Your task to perform on an android device: Open the map Image 0: 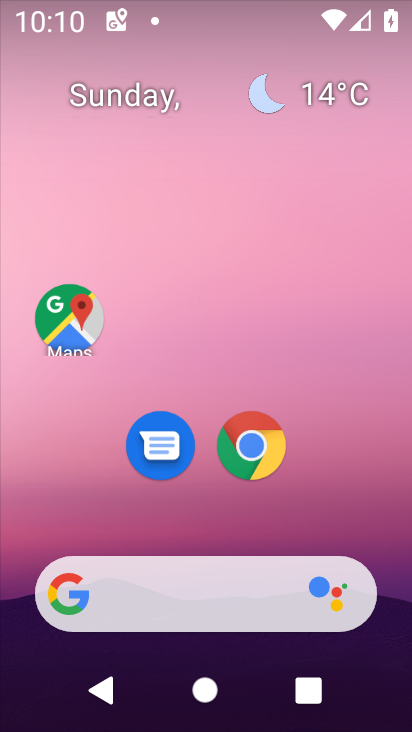
Step 0: drag from (208, 523) to (285, 30)
Your task to perform on an android device: Open the map Image 1: 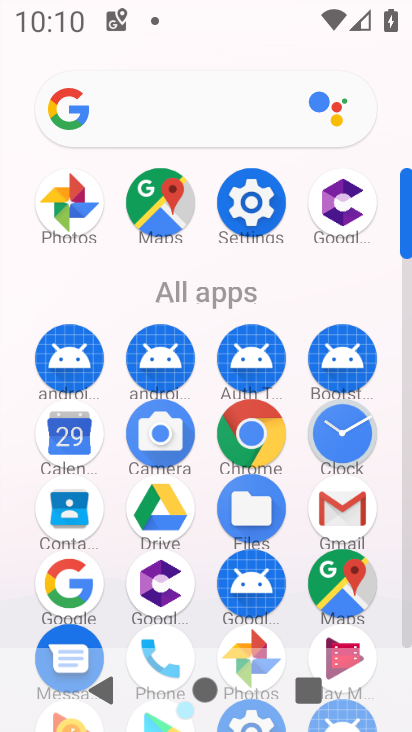
Step 1: drag from (207, 628) to (192, 138)
Your task to perform on an android device: Open the map Image 2: 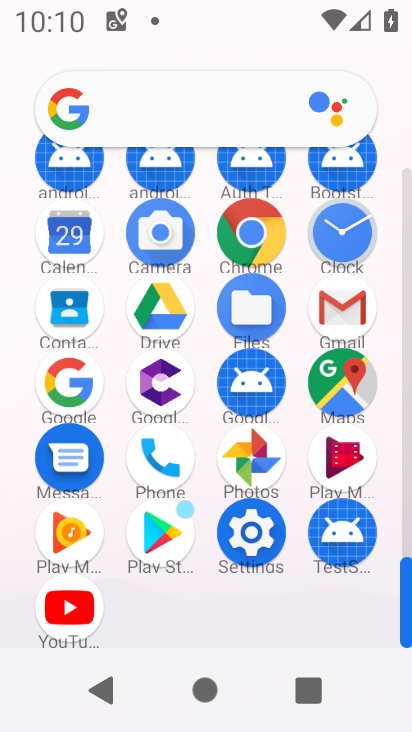
Step 2: click (339, 368)
Your task to perform on an android device: Open the map Image 3: 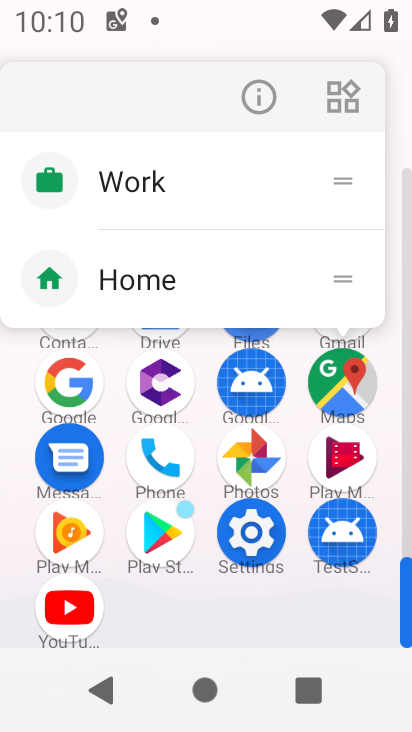
Step 3: click (265, 115)
Your task to perform on an android device: Open the map Image 4: 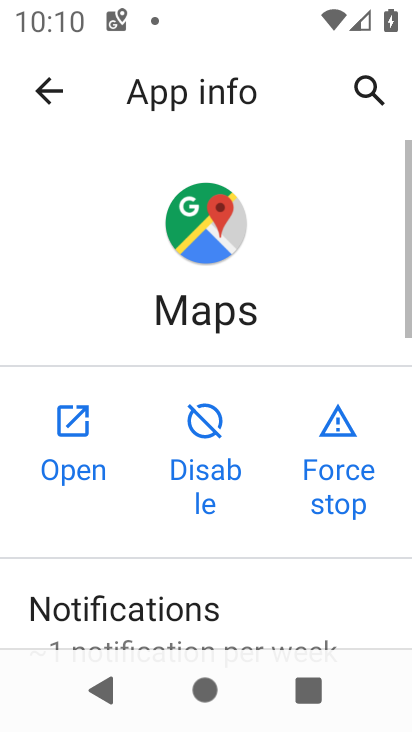
Step 4: click (55, 435)
Your task to perform on an android device: Open the map Image 5: 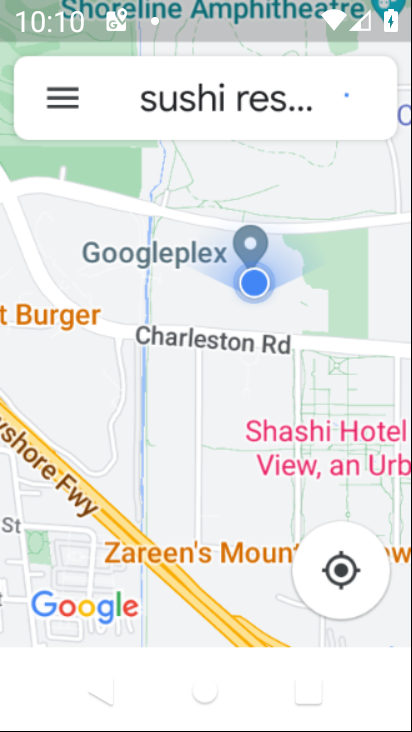
Step 5: task complete